Your task to perform on an android device: choose inbox layout in the gmail app Image 0: 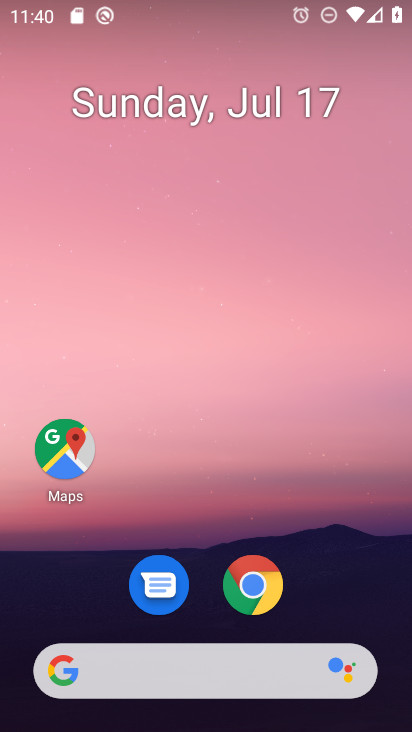
Step 0: drag from (228, 499) to (236, 0)
Your task to perform on an android device: choose inbox layout in the gmail app Image 1: 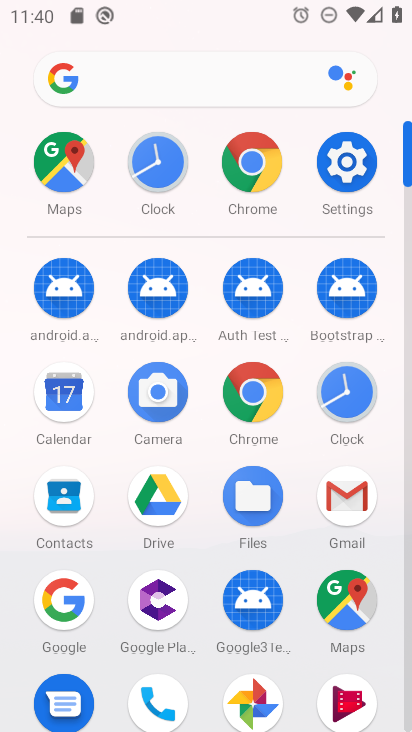
Step 1: click (351, 502)
Your task to perform on an android device: choose inbox layout in the gmail app Image 2: 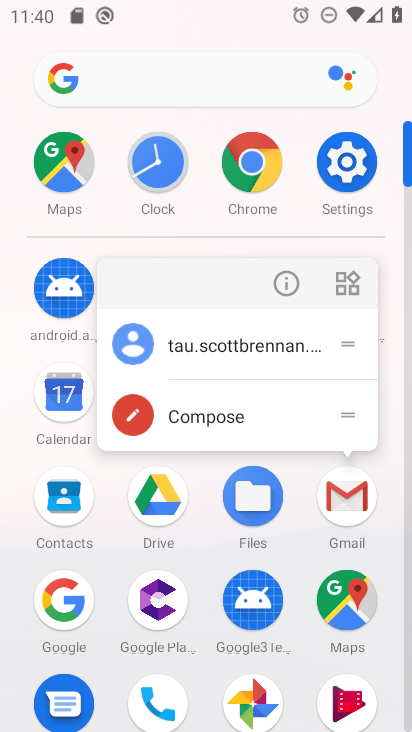
Step 2: click (351, 502)
Your task to perform on an android device: choose inbox layout in the gmail app Image 3: 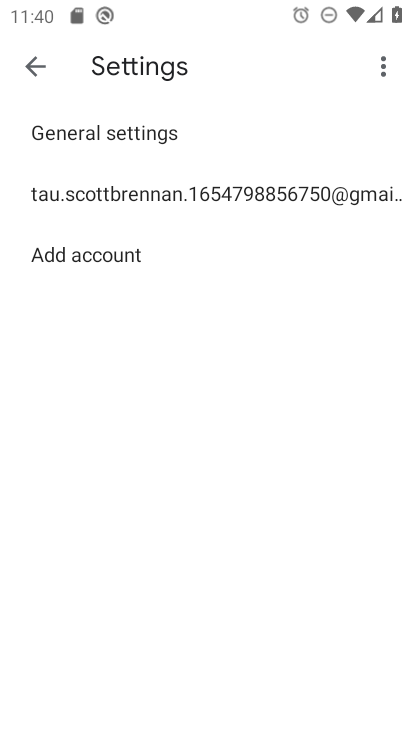
Step 3: click (48, 59)
Your task to perform on an android device: choose inbox layout in the gmail app Image 4: 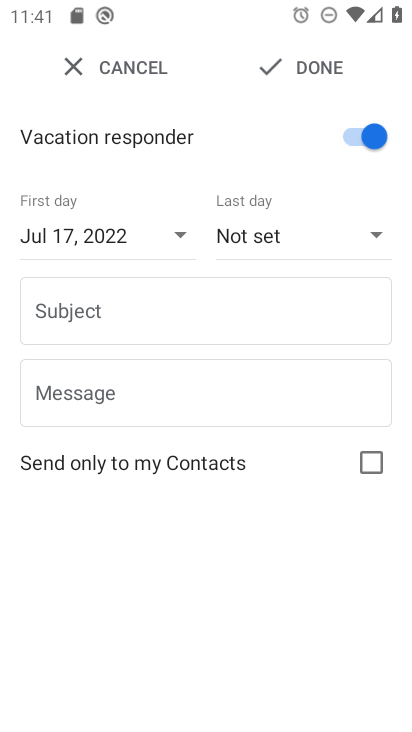
Step 4: press home button
Your task to perform on an android device: choose inbox layout in the gmail app Image 5: 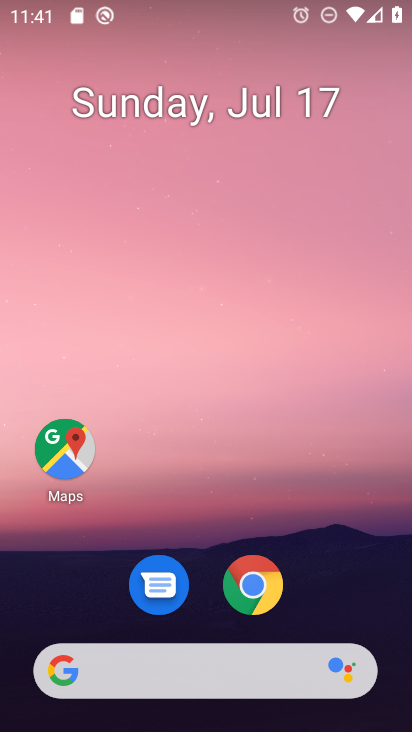
Step 5: drag from (194, 532) to (223, 5)
Your task to perform on an android device: choose inbox layout in the gmail app Image 6: 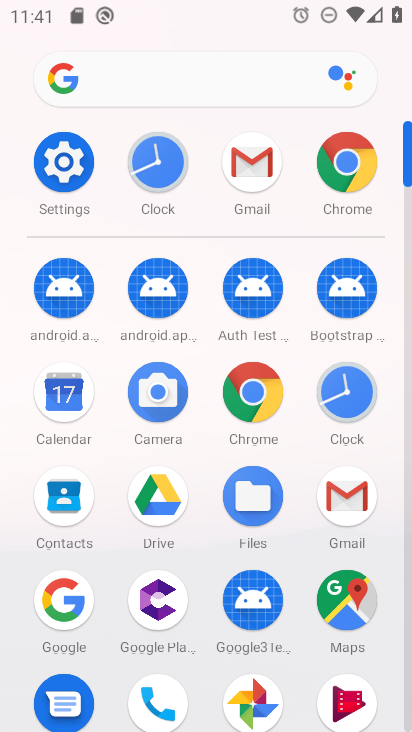
Step 6: click (245, 173)
Your task to perform on an android device: choose inbox layout in the gmail app Image 7: 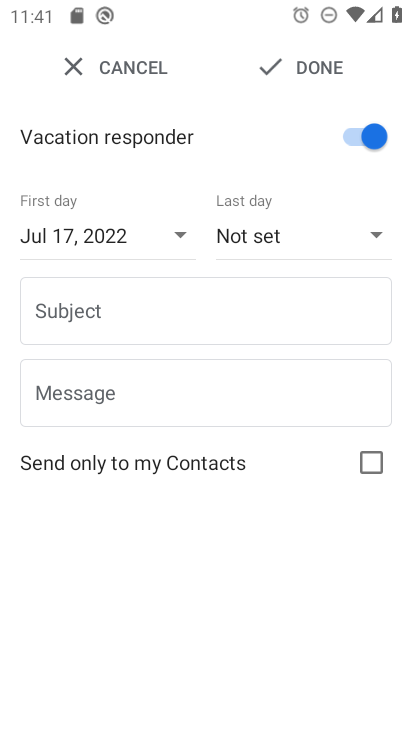
Step 7: press back button
Your task to perform on an android device: choose inbox layout in the gmail app Image 8: 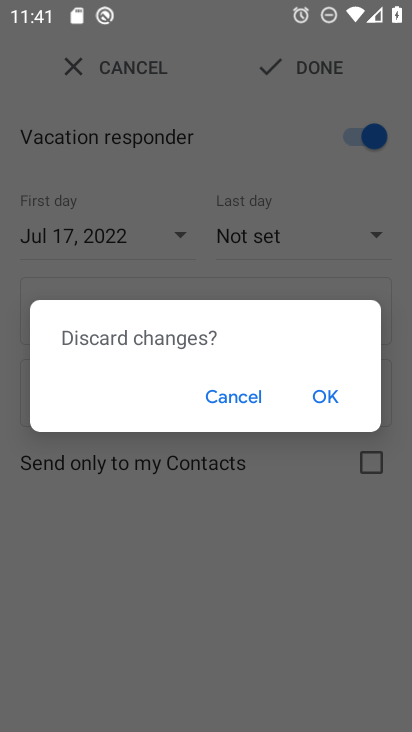
Step 8: click (317, 397)
Your task to perform on an android device: choose inbox layout in the gmail app Image 9: 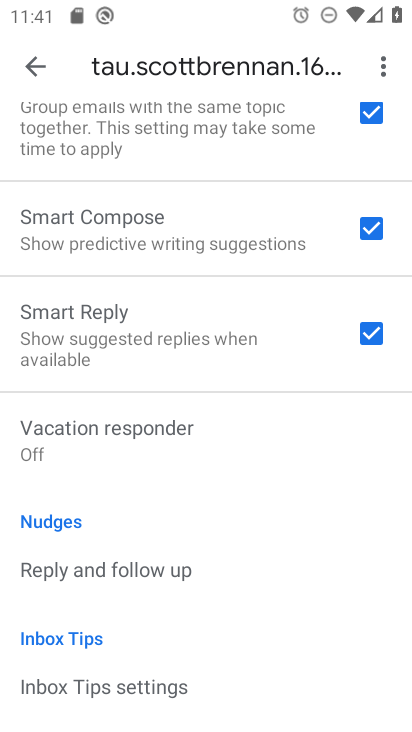
Step 9: drag from (164, 164) to (180, 727)
Your task to perform on an android device: choose inbox layout in the gmail app Image 10: 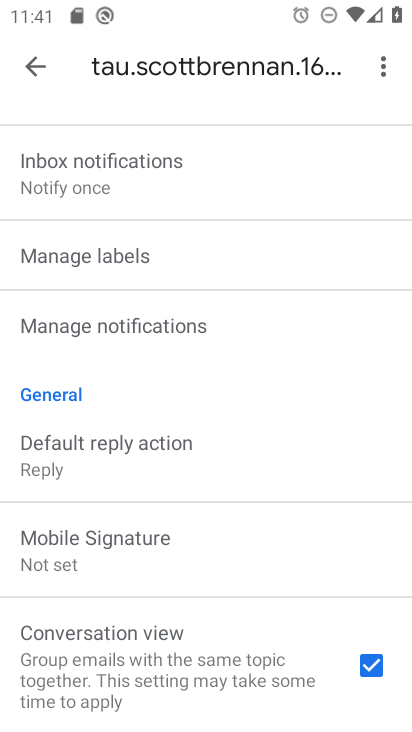
Step 10: drag from (153, 205) to (153, 670)
Your task to perform on an android device: choose inbox layout in the gmail app Image 11: 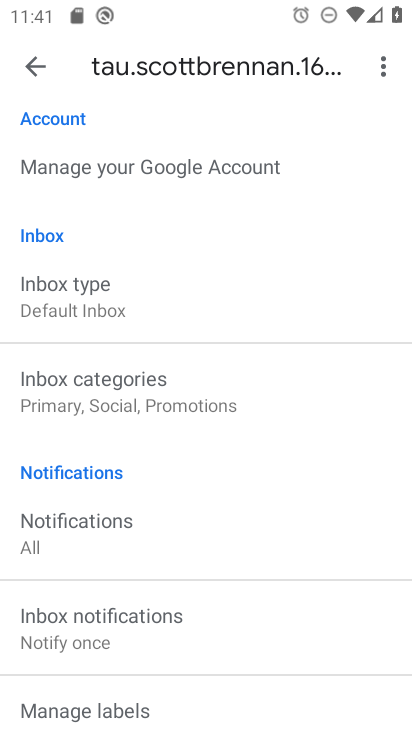
Step 11: click (93, 285)
Your task to perform on an android device: choose inbox layout in the gmail app Image 12: 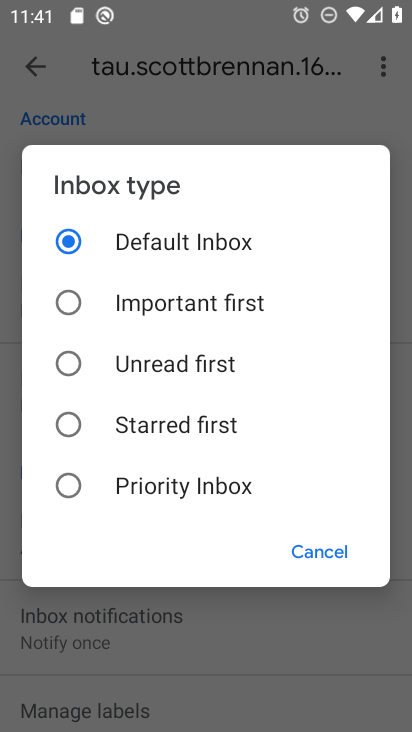
Step 12: click (73, 293)
Your task to perform on an android device: choose inbox layout in the gmail app Image 13: 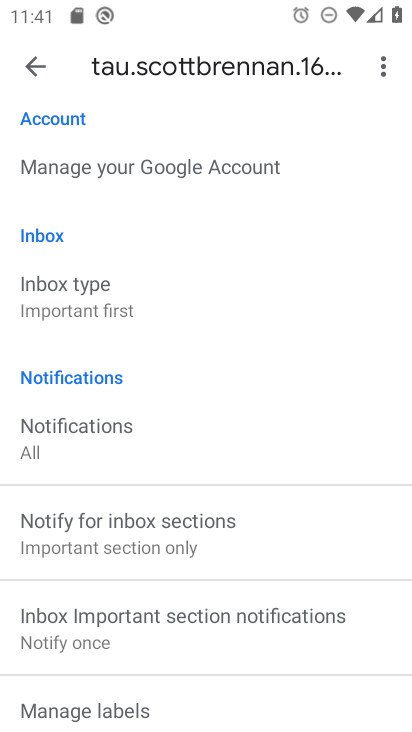
Step 13: click (34, 62)
Your task to perform on an android device: choose inbox layout in the gmail app Image 14: 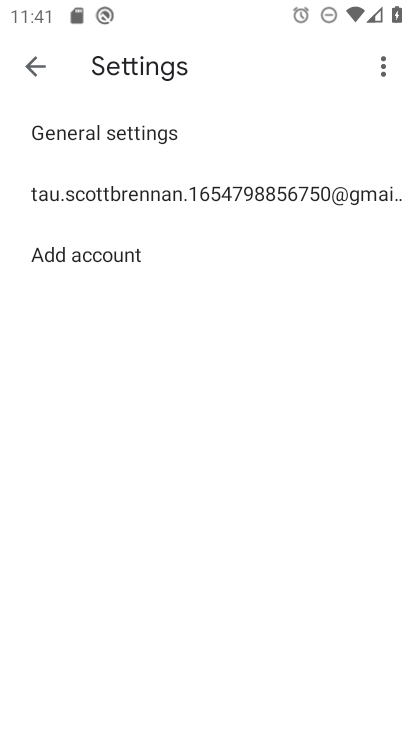
Step 14: task complete